Your task to perform on an android device: turn on airplane mode Image 0: 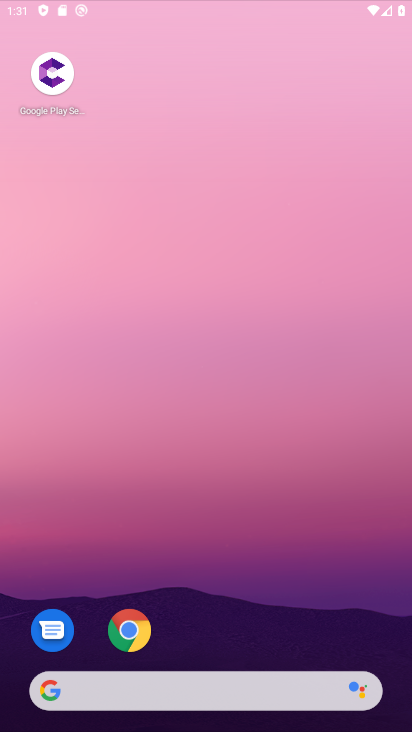
Step 0: click (252, 215)
Your task to perform on an android device: turn on airplane mode Image 1: 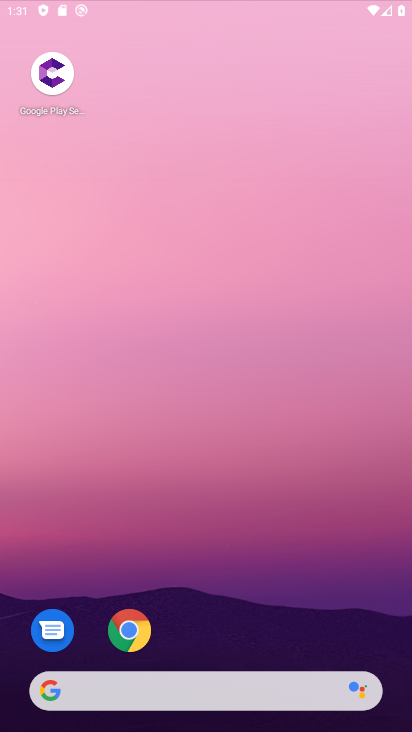
Step 1: drag from (194, 625) to (254, 189)
Your task to perform on an android device: turn on airplane mode Image 2: 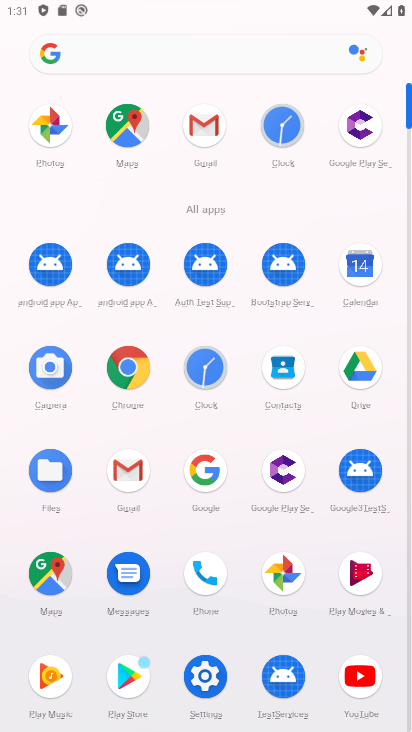
Step 2: click (205, 667)
Your task to perform on an android device: turn on airplane mode Image 3: 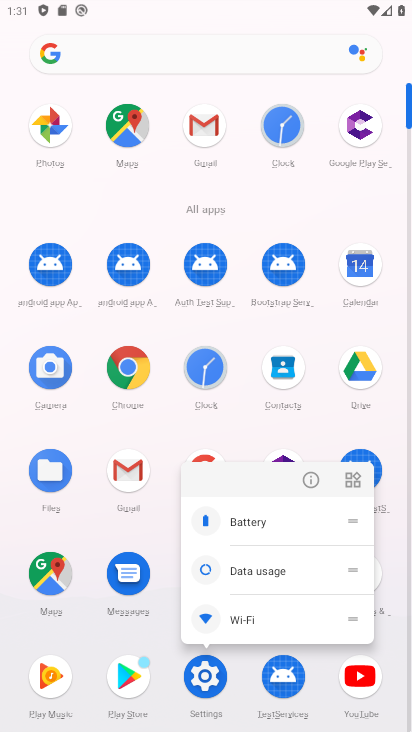
Step 3: click (313, 488)
Your task to perform on an android device: turn on airplane mode Image 4: 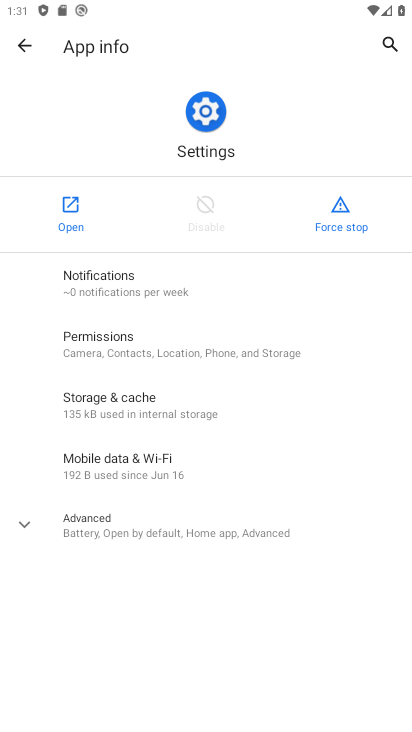
Step 4: click (66, 197)
Your task to perform on an android device: turn on airplane mode Image 5: 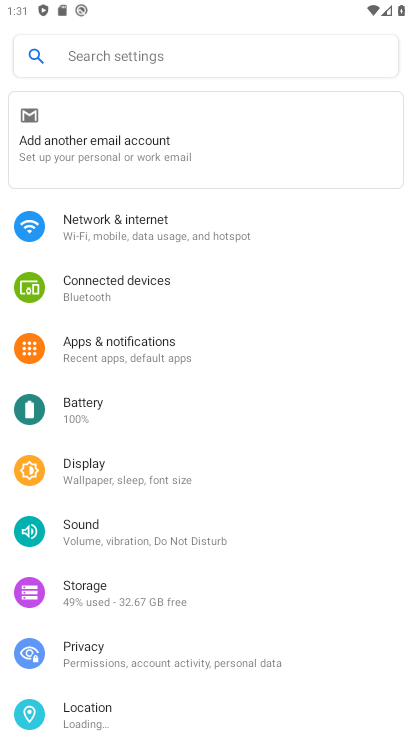
Step 5: click (149, 246)
Your task to perform on an android device: turn on airplane mode Image 6: 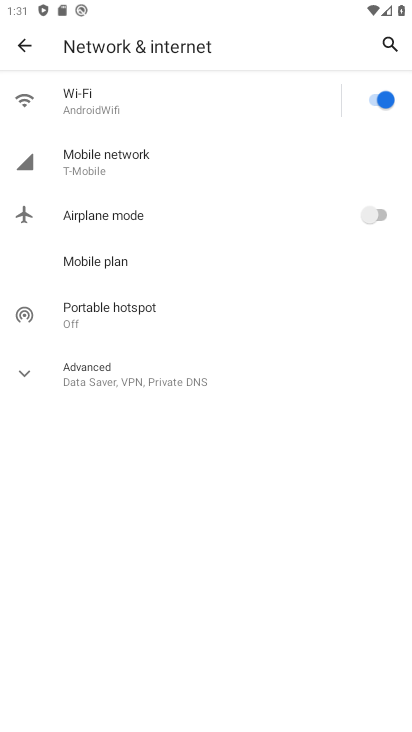
Step 6: drag from (220, 435) to (227, 280)
Your task to perform on an android device: turn on airplane mode Image 7: 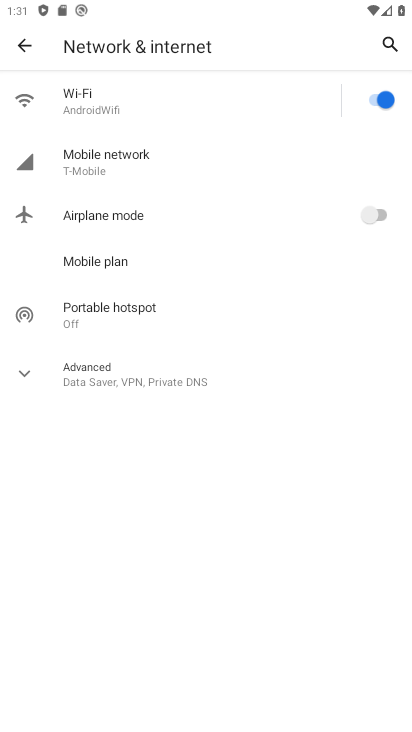
Step 7: click (140, 214)
Your task to perform on an android device: turn on airplane mode Image 8: 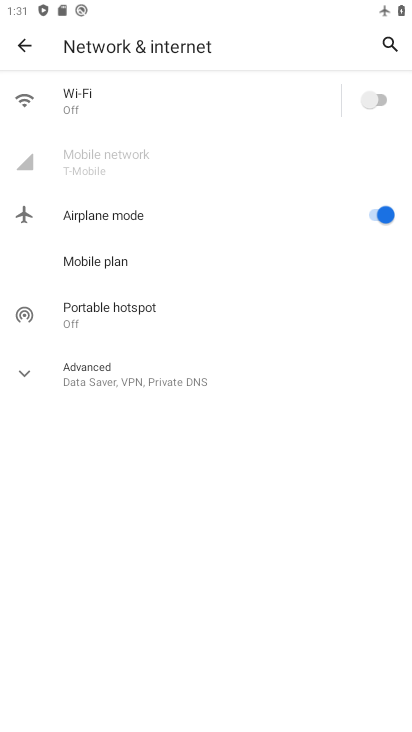
Step 8: task complete